Your task to perform on an android device: Do I have any events tomorrow? Image 0: 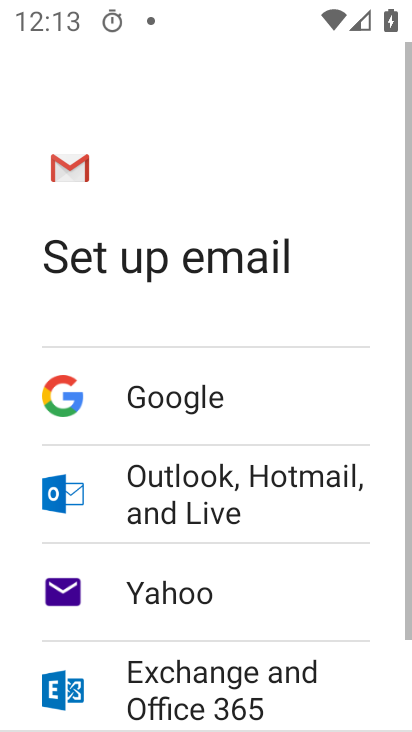
Step 0: press home button
Your task to perform on an android device: Do I have any events tomorrow? Image 1: 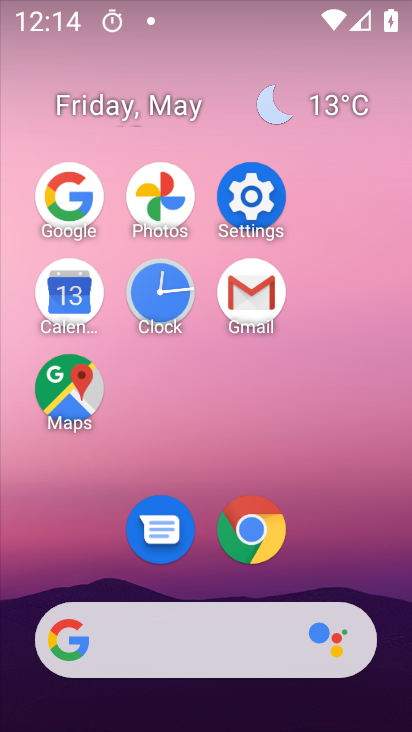
Step 1: click (79, 277)
Your task to perform on an android device: Do I have any events tomorrow? Image 2: 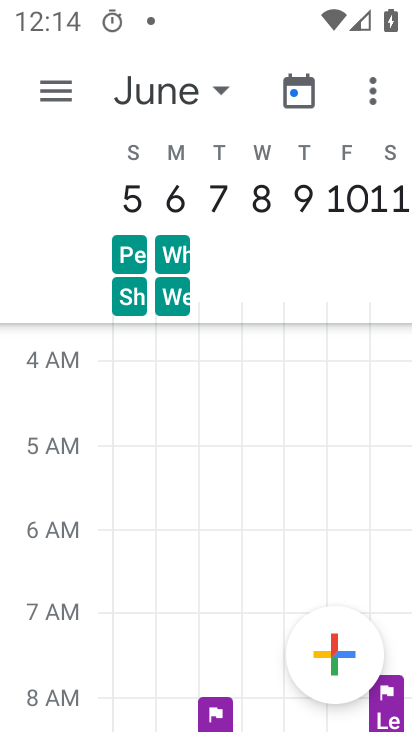
Step 2: click (43, 83)
Your task to perform on an android device: Do I have any events tomorrow? Image 3: 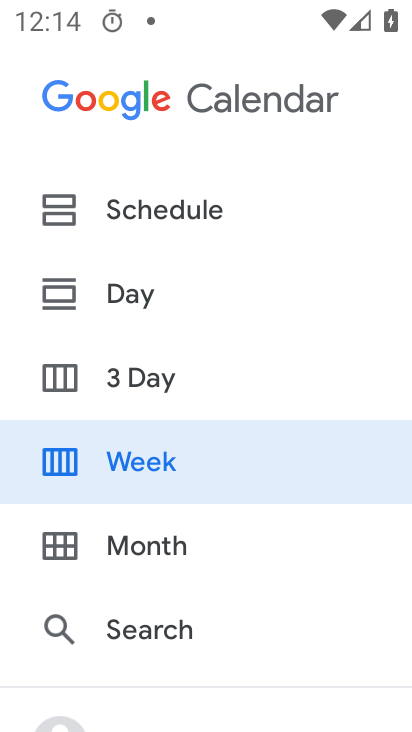
Step 3: click (168, 306)
Your task to perform on an android device: Do I have any events tomorrow? Image 4: 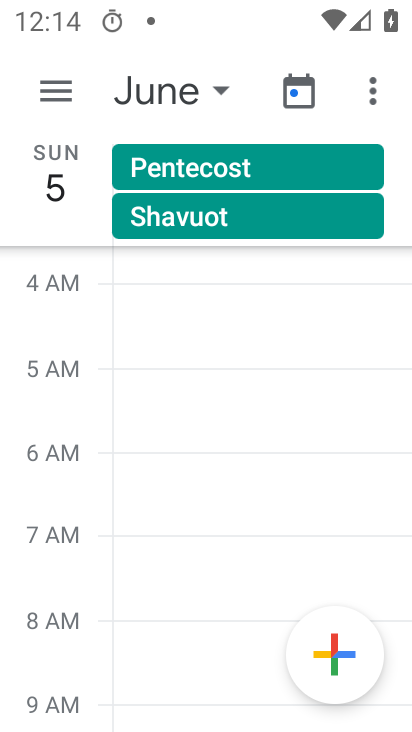
Step 4: click (160, 77)
Your task to perform on an android device: Do I have any events tomorrow? Image 5: 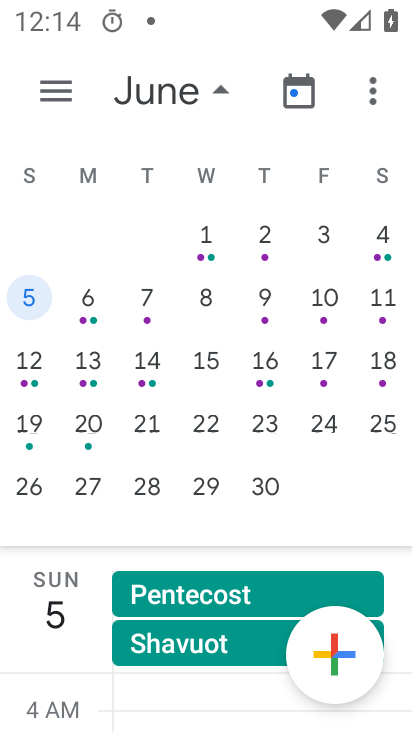
Step 5: drag from (58, 344) to (399, 327)
Your task to perform on an android device: Do I have any events tomorrow? Image 6: 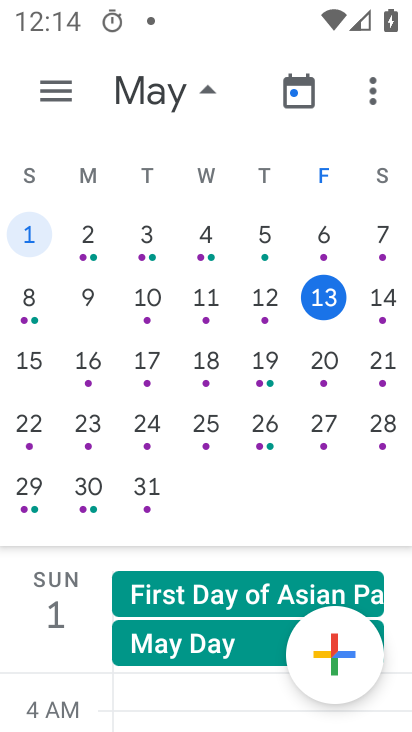
Step 6: click (376, 298)
Your task to perform on an android device: Do I have any events tomorrow? Image 7: 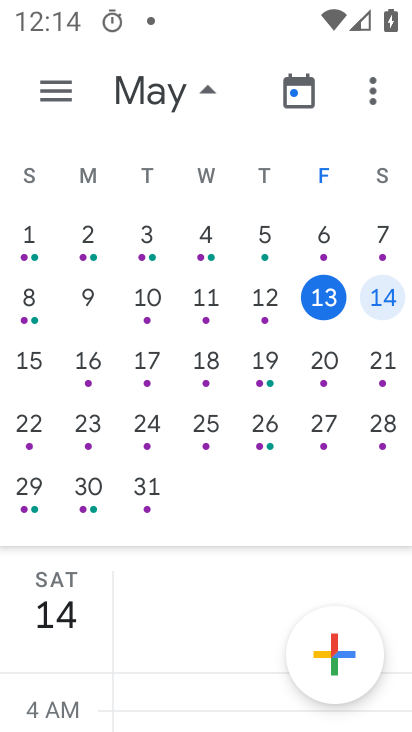
Step 7: click (66, 608)
Your task to perform on an android device: Do I have any events tomorrow? Image 8: 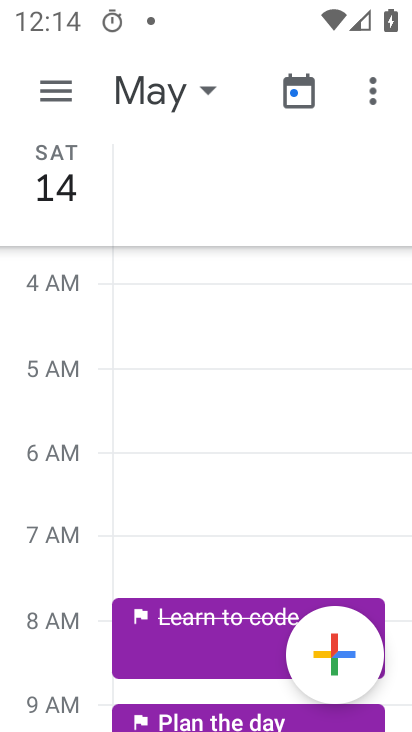
Step 8: task complete